Your task to perform on an android device: check google app version Image 0: 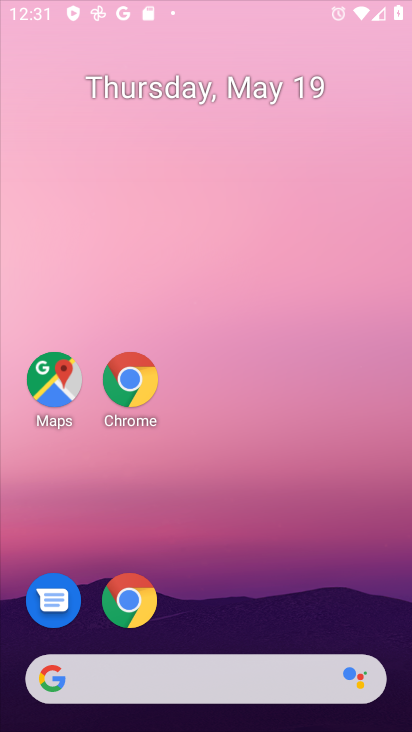
Step 0: drag from (322, 695) to (121, 107)
Your task to perform on an android device: check google app version Image 1: 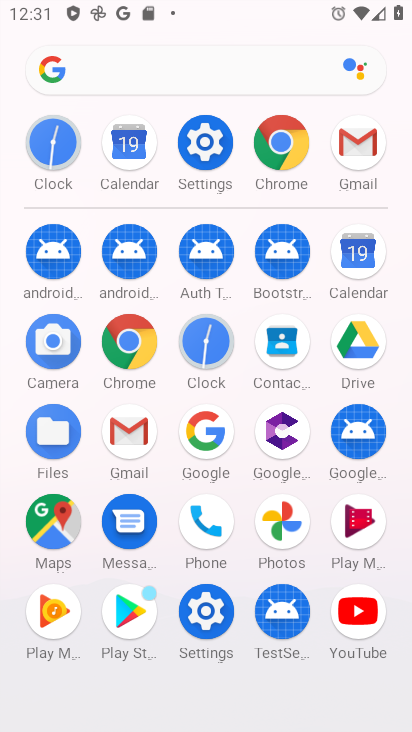
Step 1: click (200, 415)
Your task to perform on an android device: check google app version Image 2: 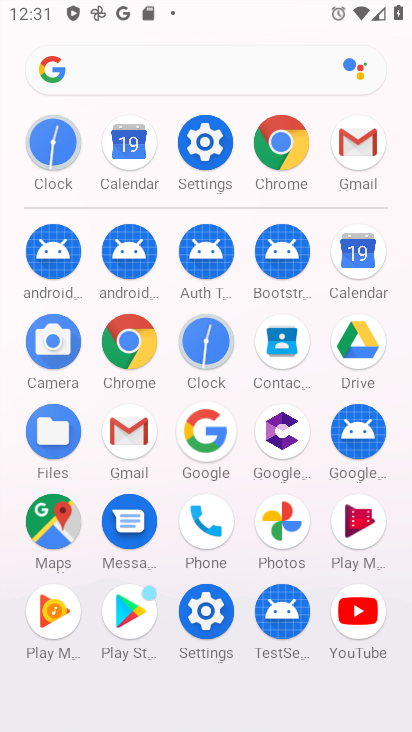
Step 2: click (204, 416)
Your task to perform on an android device: check google app version Image 3: 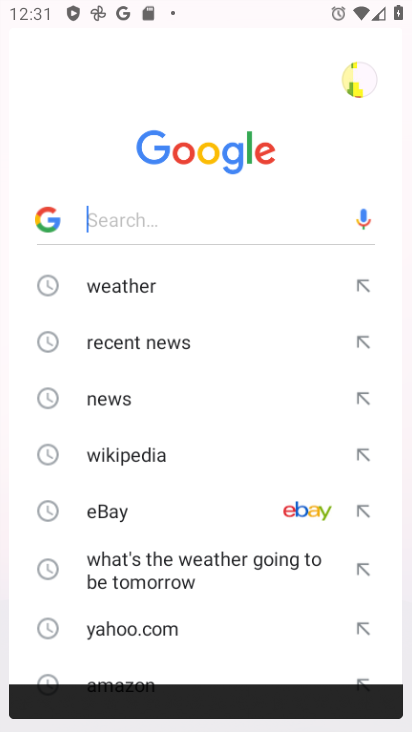
Step 3: click (204, 417)
Your task to perform on an android device: check google app version Image 4: 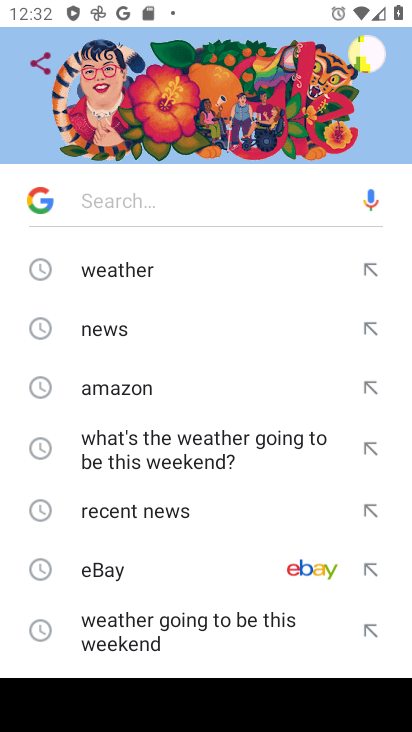
Step 4: press back button
Your task to perform on an android device: check google app version Image 5: 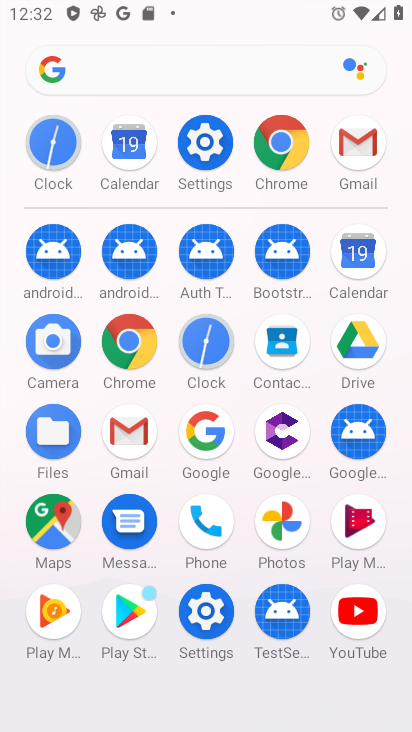
Step 5: click (207, 437)
Your task to perform on an android device: check google app version Image 6: 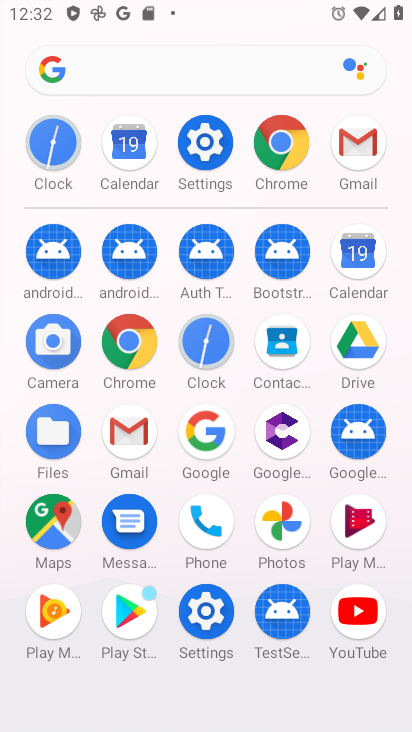
Step 6: click (207, 437)
Your task to perform on an android device: check google app version Image 7: 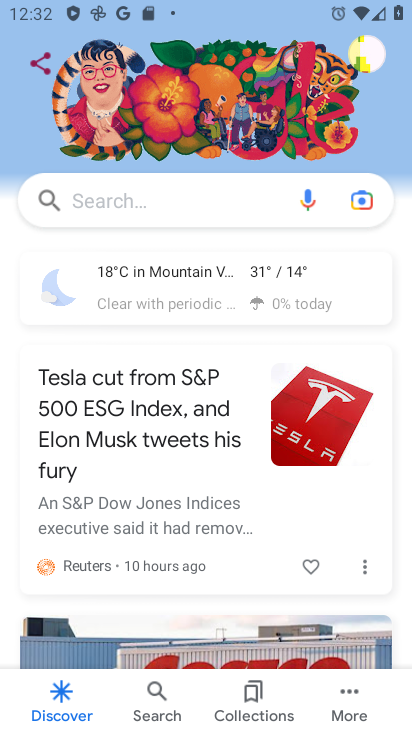
Step 7: click (357, 698)
Your task to perform on an android device: check google app version Image 8: 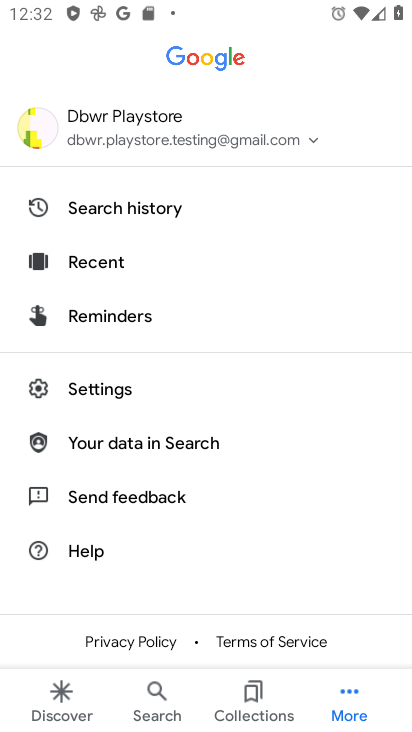
Step 8: click (85, 386)
Your task to perform on an android device: check google app version Image 9: 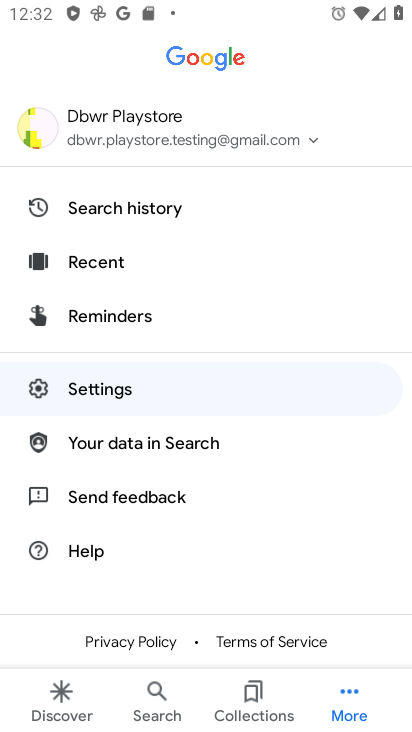
Step 9: click (86, 386)
Your task to perform on an android device: check google app version Image 10: 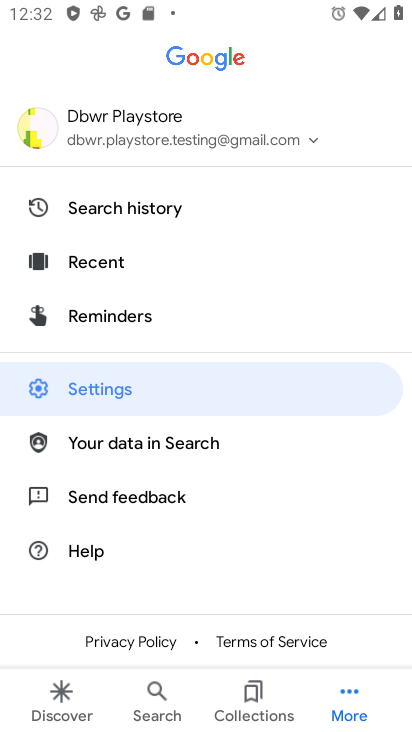
Step 10: click (86, 386)
Your task to perform on an android device: check google app version Image 11: 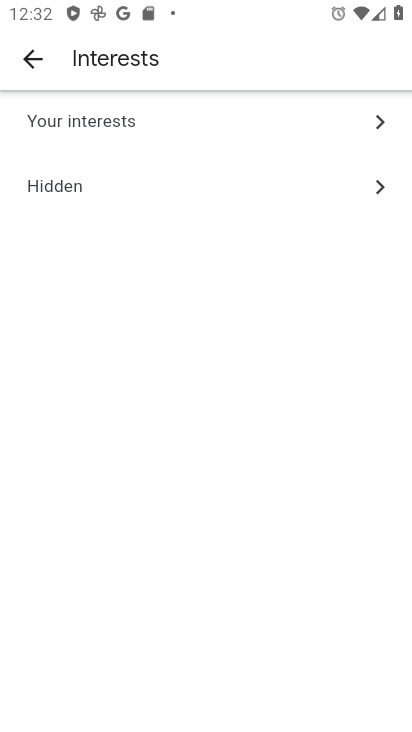
Step 11: click (26, 34)
Your task to perform on an android device: check google app version Image 12: 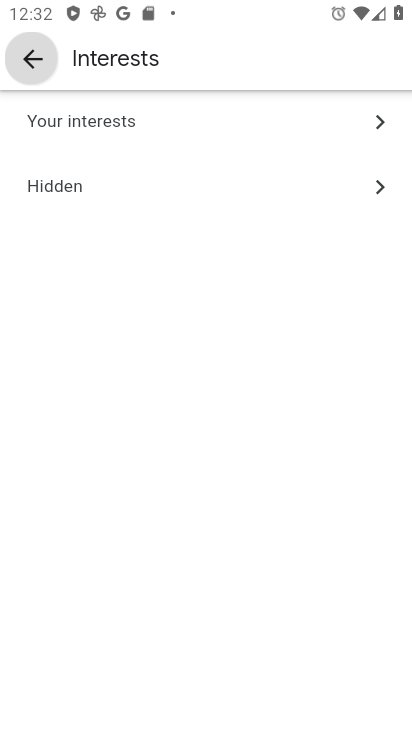
Step 12: click (26, 49)
Your task to perform on an android device: check google app version Image 13: 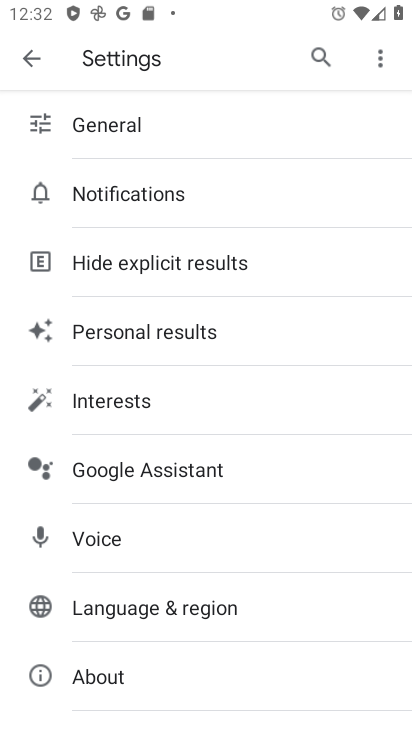
Step 13: click (117, 681)
Your task to perform on an android device: check google app version Image 14: 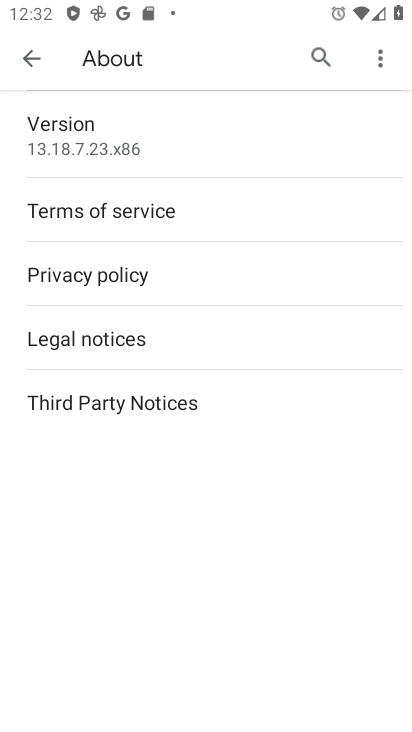
Step 14: task complete